Your task to perform on an android device: read, delete, or share a saved page in the chrome app Image 0: 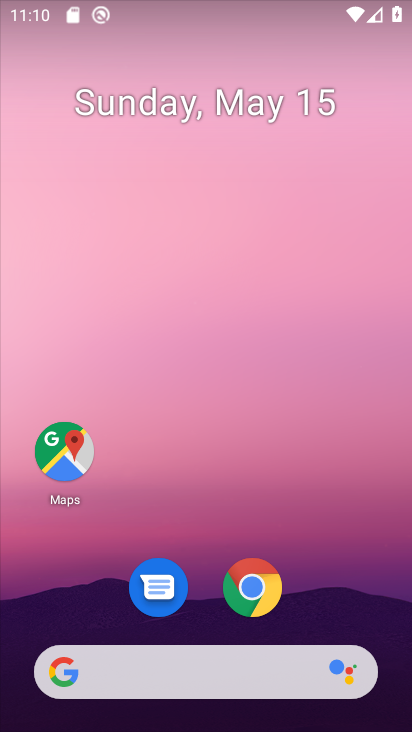
Step 0: click (254, 583)
Your task to perform on an android device: read, delete, or share a saved page in the chrome app Image 1: 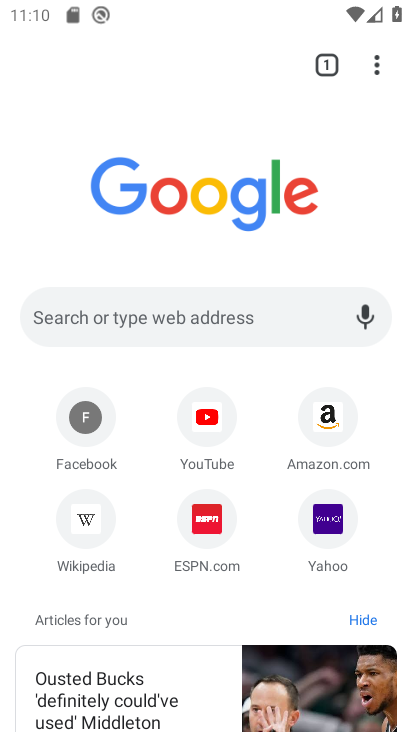
Step 1: drag from (374, 60) to (159, 426)
Your task to perform on an android device: read, delete, or share a saved page in the chrome app Image 2: 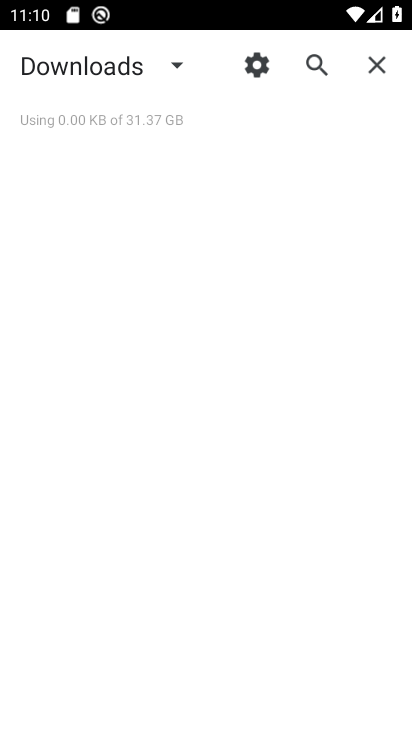
Step 2: click (170, 71)
Your task to perform on an android device: read, delete, or share a saved page in the chrome app Image 3: 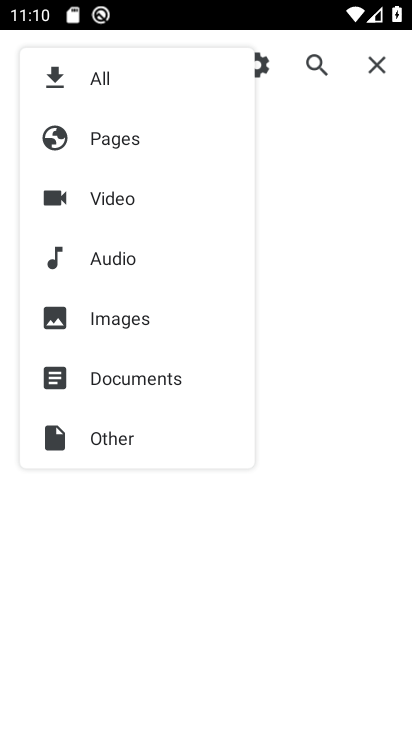
Step 3: click (133, 138)
Your task to perform on an android device: read, delete, or share a saved page in the chrome app Image 4: 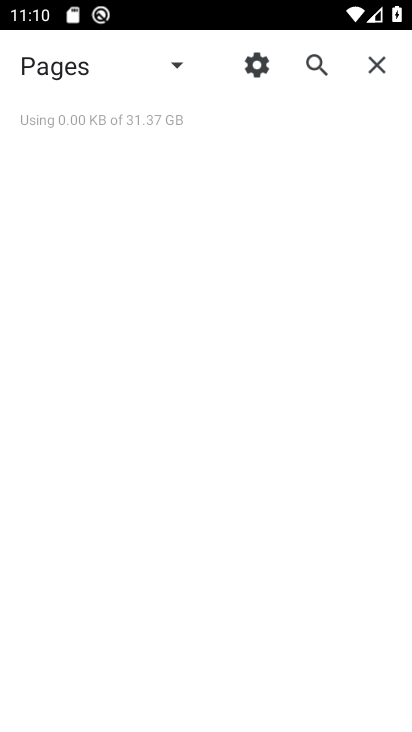
Step 4: task complete